Your task to perform on an android device: turn off javascript in the chrome app Image 0: 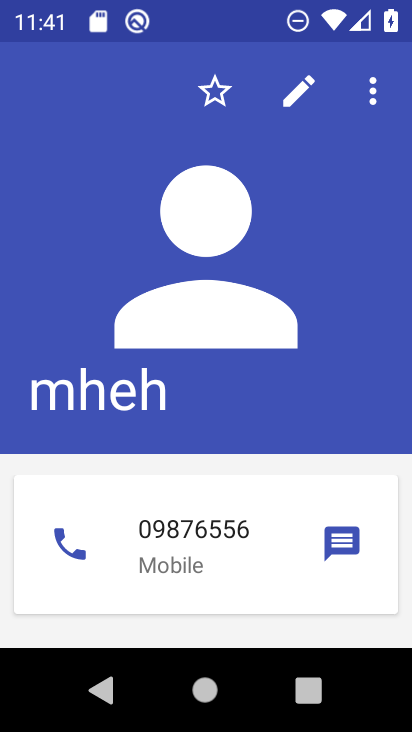
Step 0: press home button
Your task to perform on an android device: turn off javascript in the chrome app Image 1: 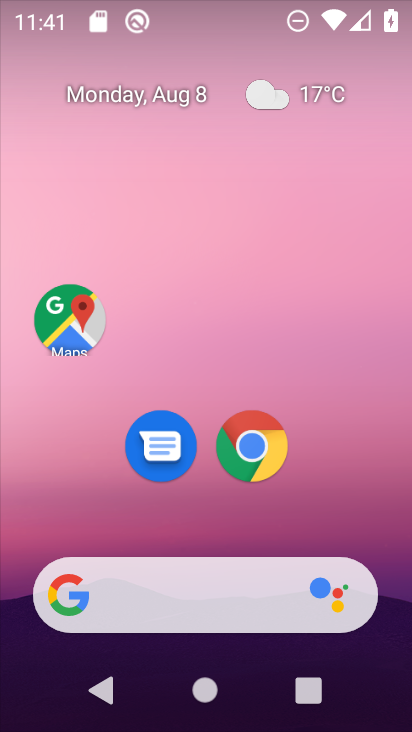
Step 1: click (249, 442)
Your task to perform on an android device: turn off javascript in the chrome app Image 2: 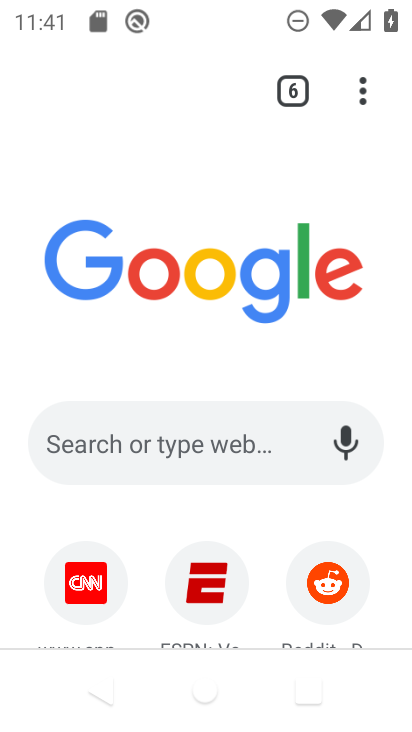
Step 2: click (354, 106)
Your task to perform on an android device: turn off javascript in the chrome app Image 3: 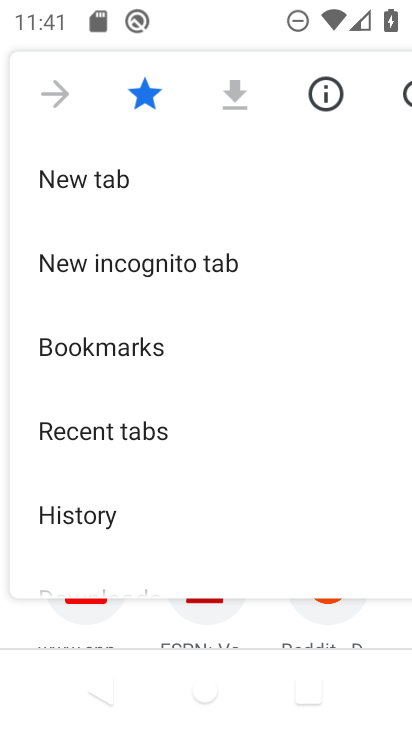
Step 3: drag from (209, 528) to (260, 160)
Your task to perform on an android device: turn off javascript in the chrome app Image 4: 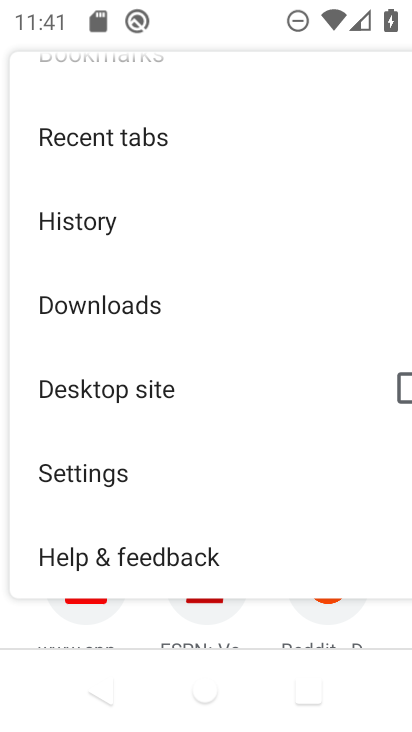
Step 4: click (90, 466)
Your task to perform on an android device: turn off javascript in the chrome app Image 5: 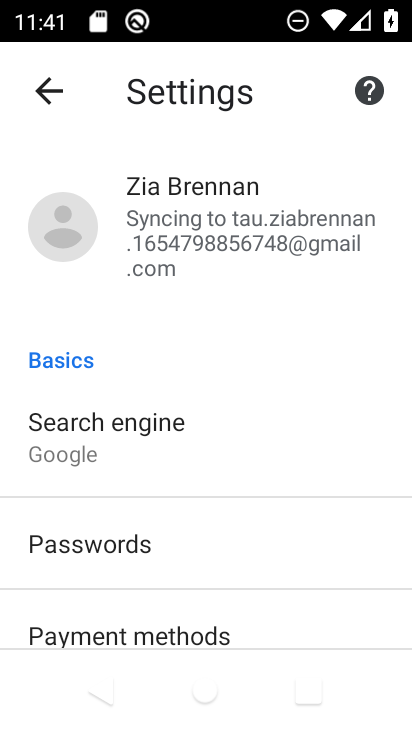
Step 5: drag from (239, 566) to (231, 218)
Your task to perform on an android device: turn off javascript in the chrome app Image 6: 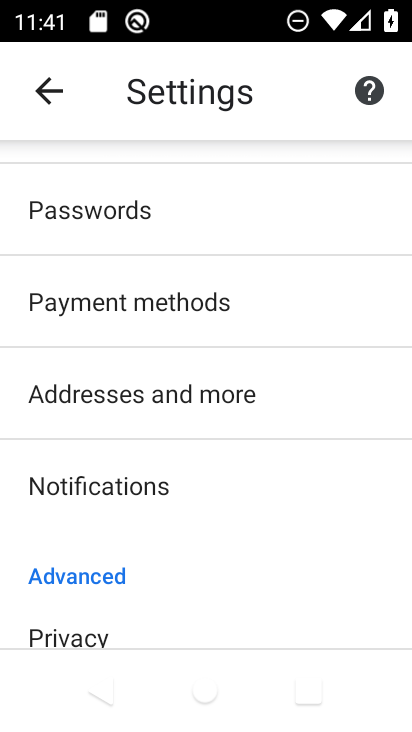
Step 6: drag from (228, 563) to (237, 285)
Your task to perform on an android device: turn off javascript in the chrome app Image 7: 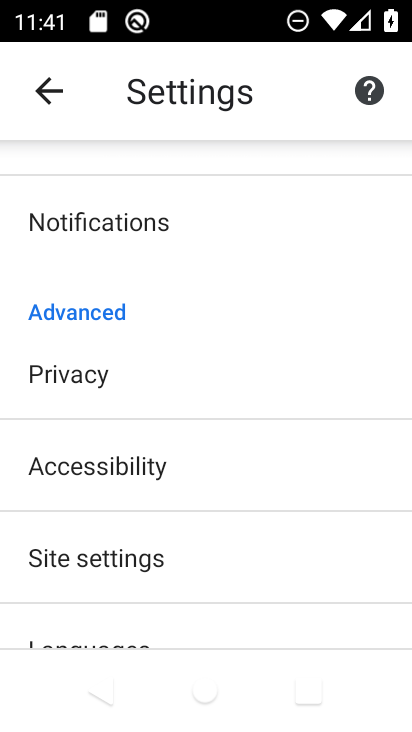
Step 7: click (61, 559)
Your task to perform on an android device: turn off javascript in the chrome app Image 8: 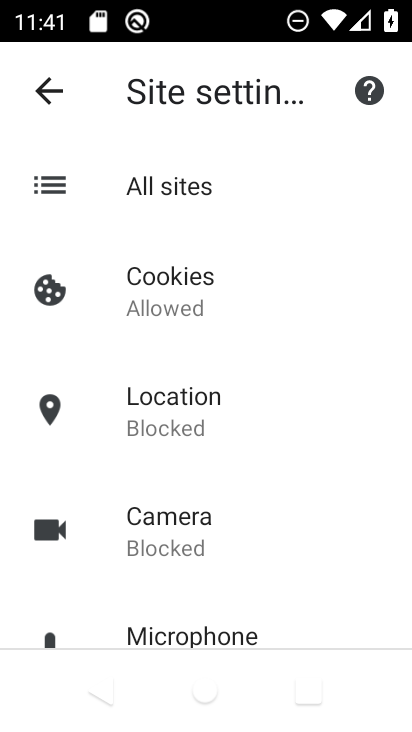
Step 8: drag from (284, 607) to (275, 240)
Your task to perform on an android device: turn off javascript in the chrome app Image 9: 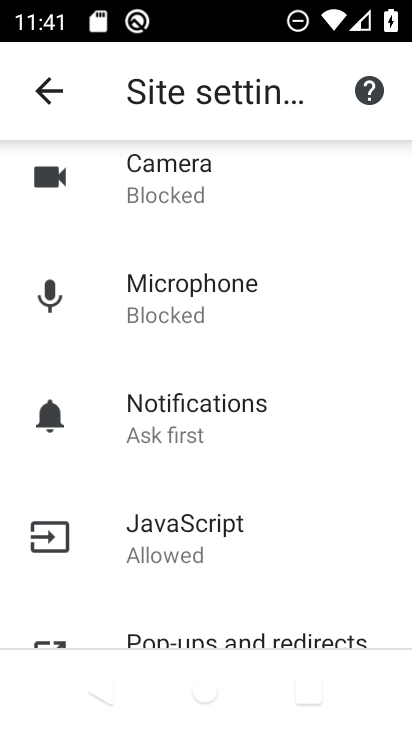
Step 9: click (179, 538)
Your task to perform on an android device: turn off javascript in the chrome app Image 10: 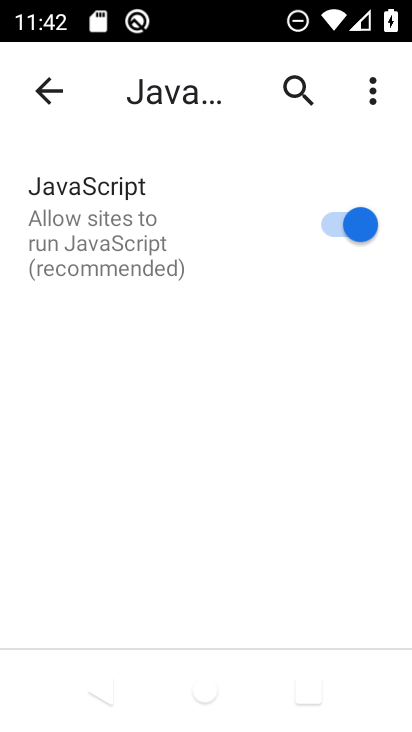
Step 10: click (326, 226)
Your task to perform on an android device: turn off javascript in the chrome app Image 11: 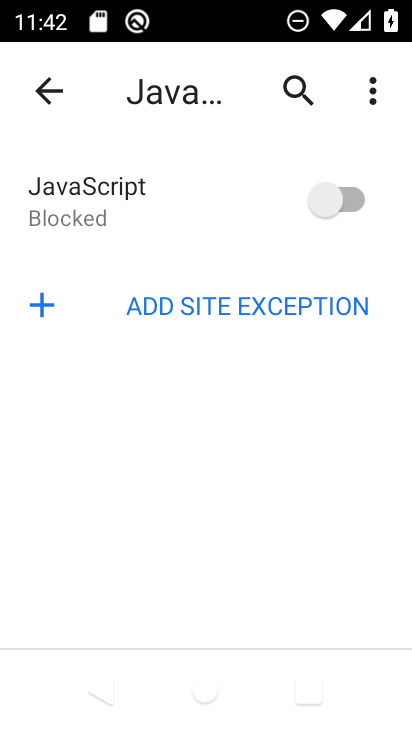
Step 11: task complete